Your task to perform on an android device: see creations saved in the google photos Image 0: 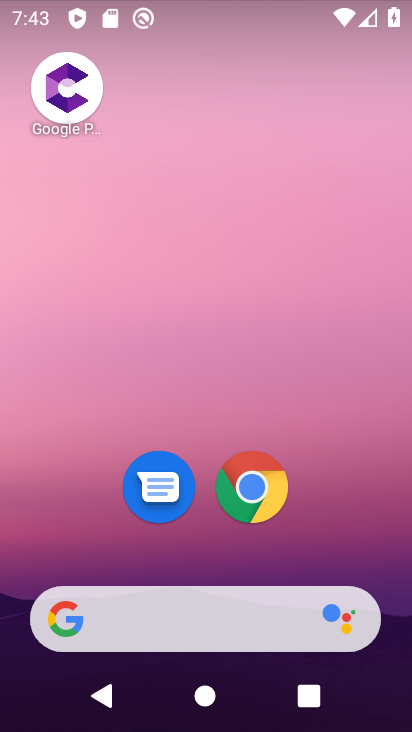
Step 0: drag from (178, 619) to (284, 151)
Your task to perform on an android device: see creations saved in the google photos Image 1: 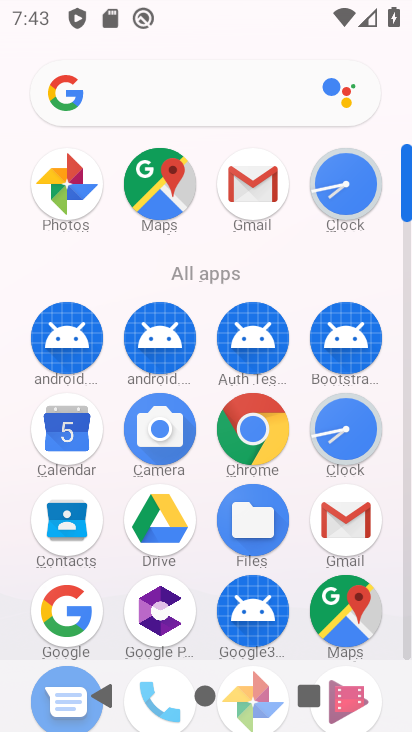
Step 1: click (64, 186)
Your task to perform on an android device: see creations saved in the google photos Image 2: 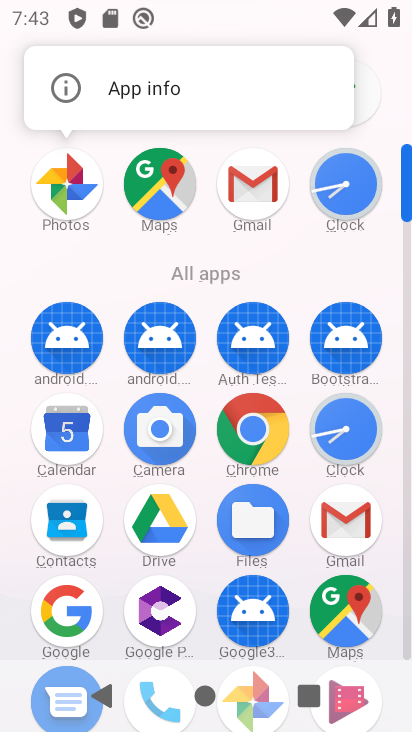
Step 2: click (64, 186)
Your task to perform on an android device: see creations saved in the google photos Image 3: 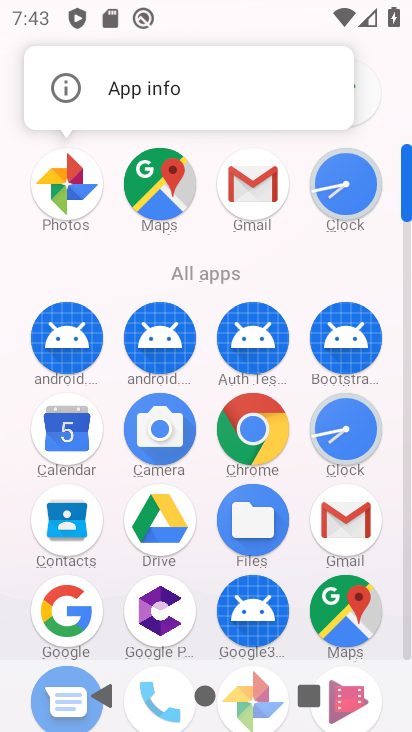
Step 3: click (56, 176)
Your task to perform on an android device: see creations saved in the google photos Image 4: 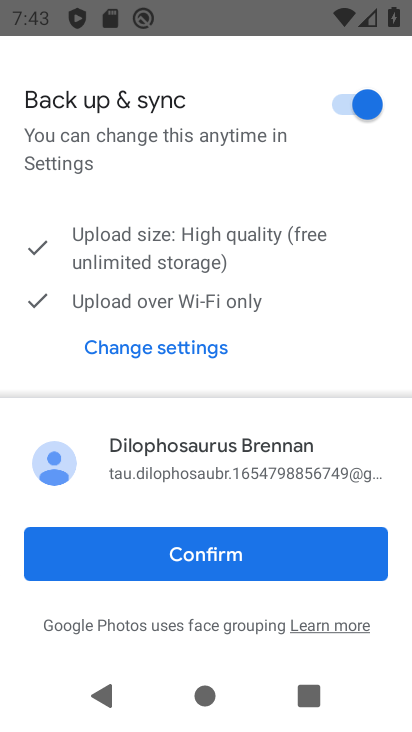
Step 4: click (201, 547)
Your task to perform on an android device: see creations saved in the google photos Image 5: 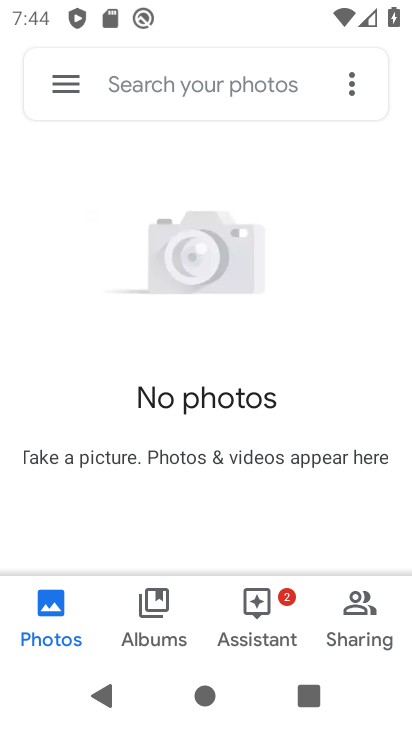
Step 5: click (154, 604)
Your task to perform on an android device: see creations saved in the google photos Image 6: 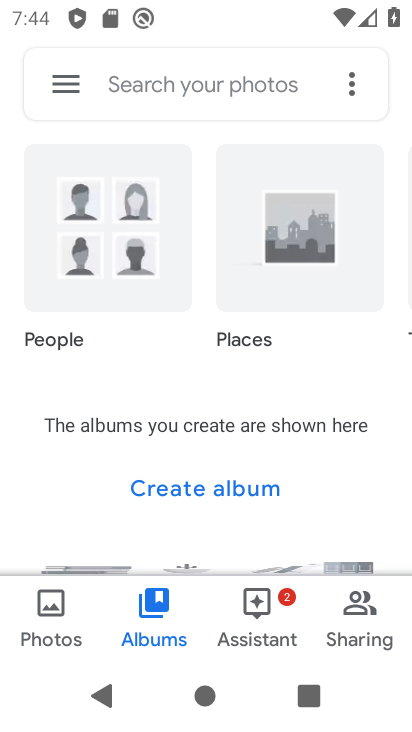
Step 6: click (198, 67)
Your task to perform on an android device: see creations saved in the google photos Image 7: 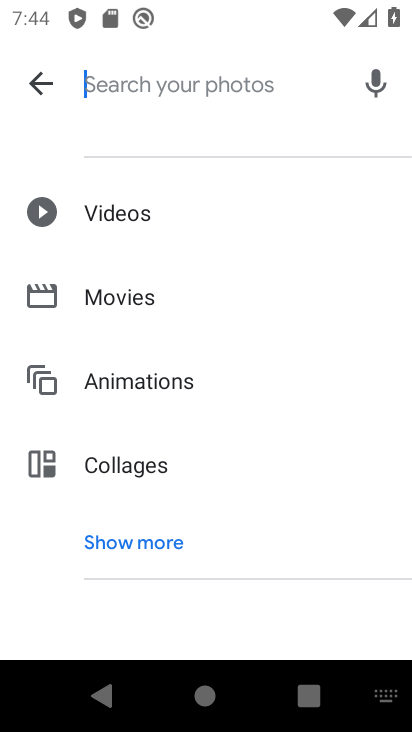
Step 7: click (133, 537)
Your task to perform on an android device: see creations saved in the google photos Image 8: 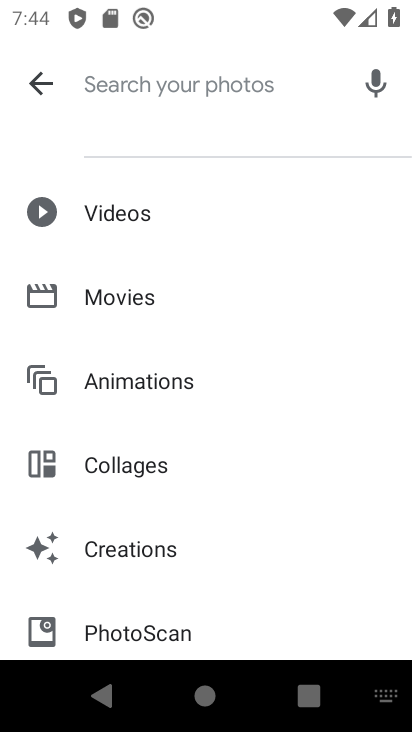
Step 8: click (142, 552)
Your task to perform on an android device: see creations saved in the google photos Image 9: 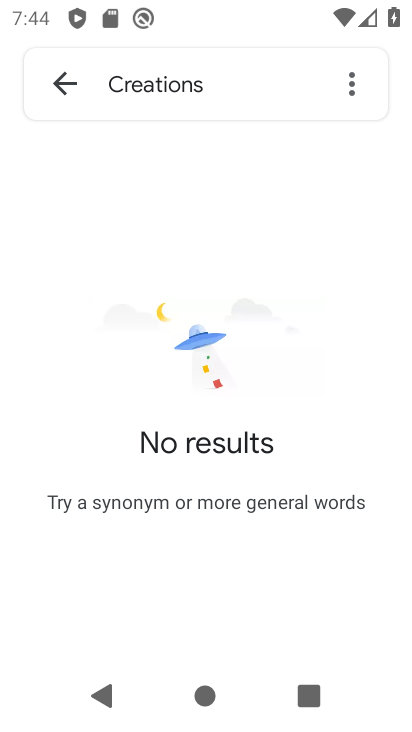
Step 9: task complete